Your task to perform on an android device: star an email in the gmail app Image 0: 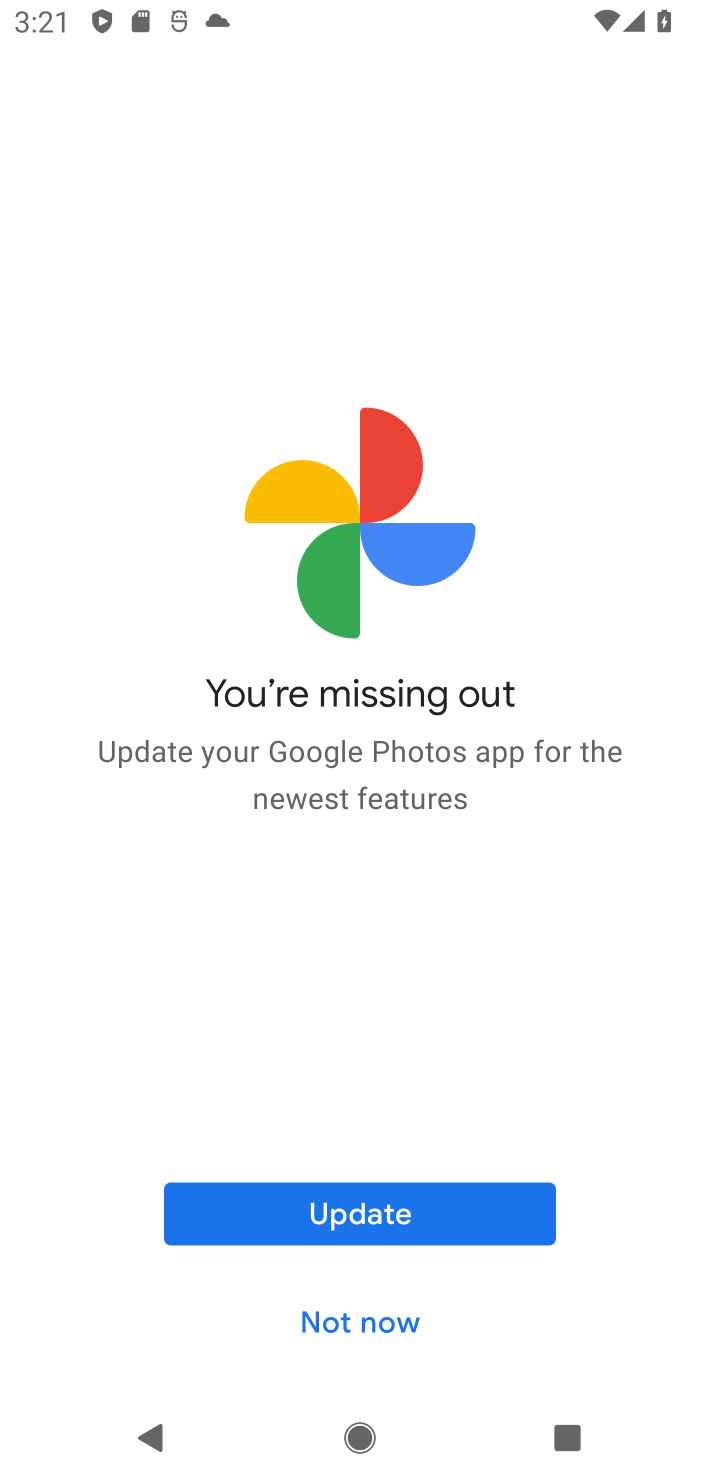
Step 0: press home button
Your task to perform on an android device: star an email in the gmail app Image 1: 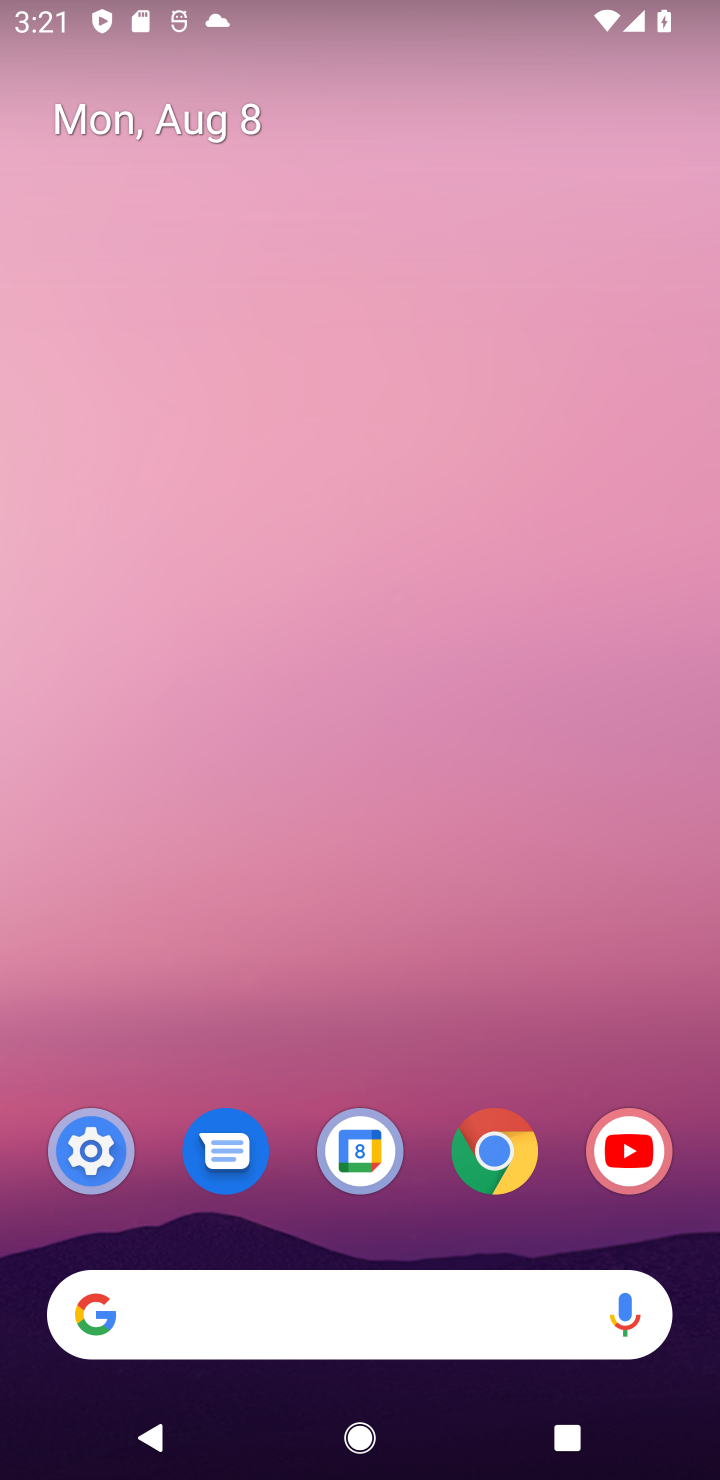
Step 1: drag from (335, 1041) to (380, 217)
Your task to perform on an android device: star an email in the gmail app Image 2: 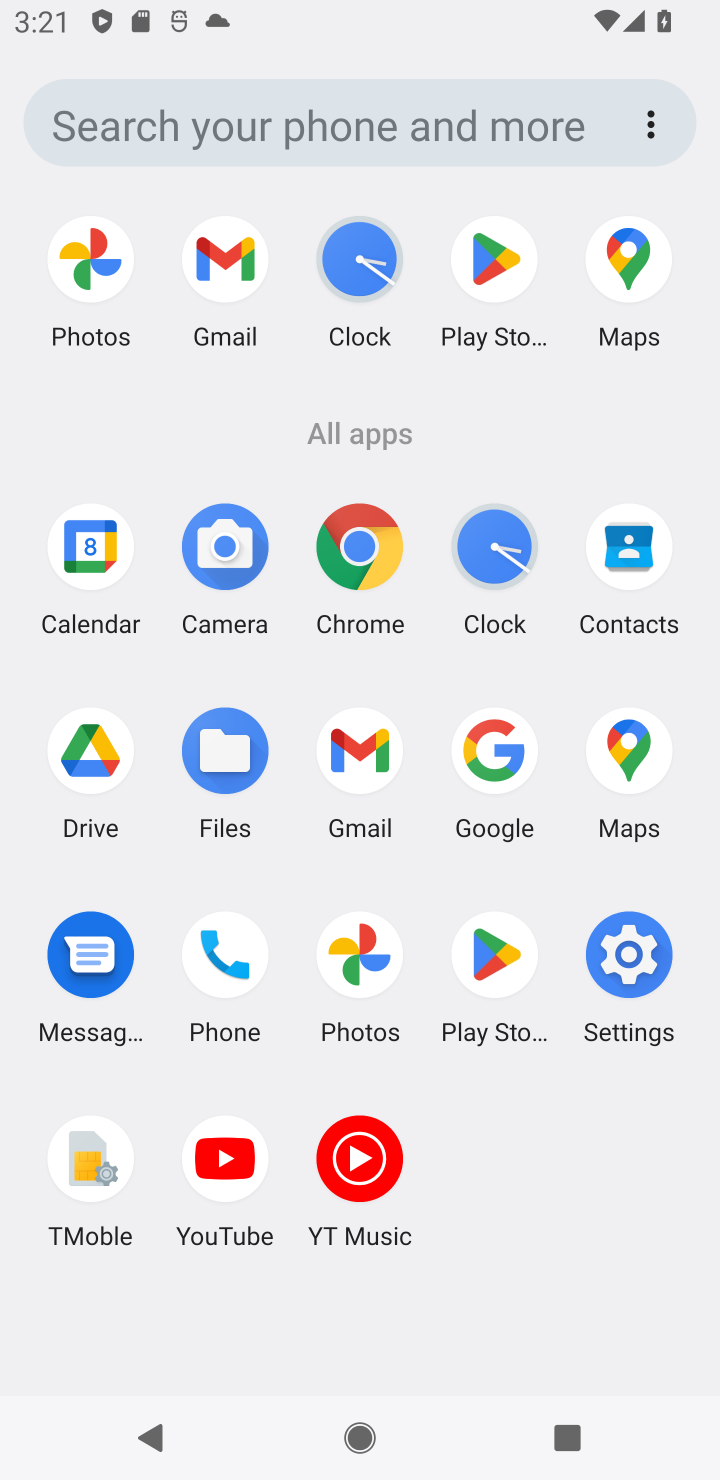
Step 2: click (365, 774)
Your task to perform on an android device: star an email in the gmail app Image 3: 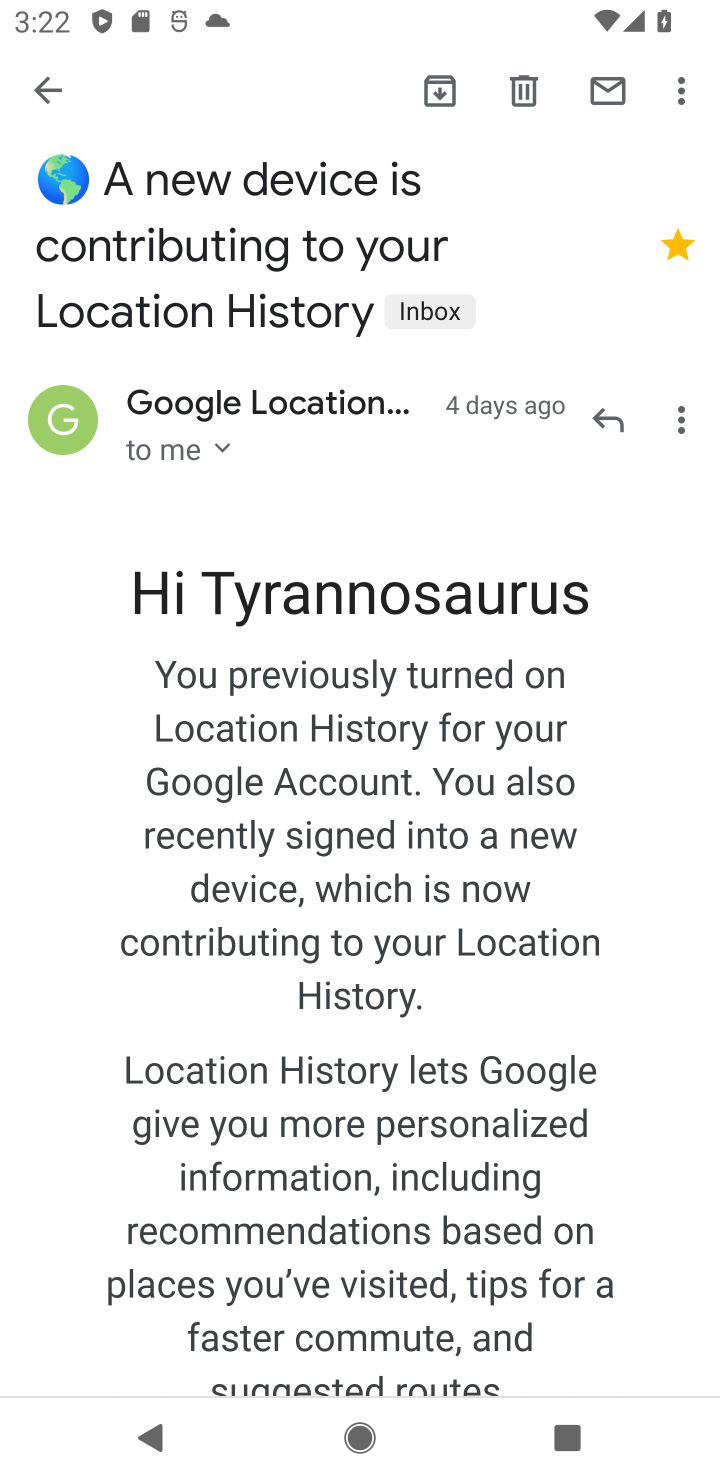
Step 3: click (62, 86)
Your task to perform on an android device: star an email in the gmail app Image 4: 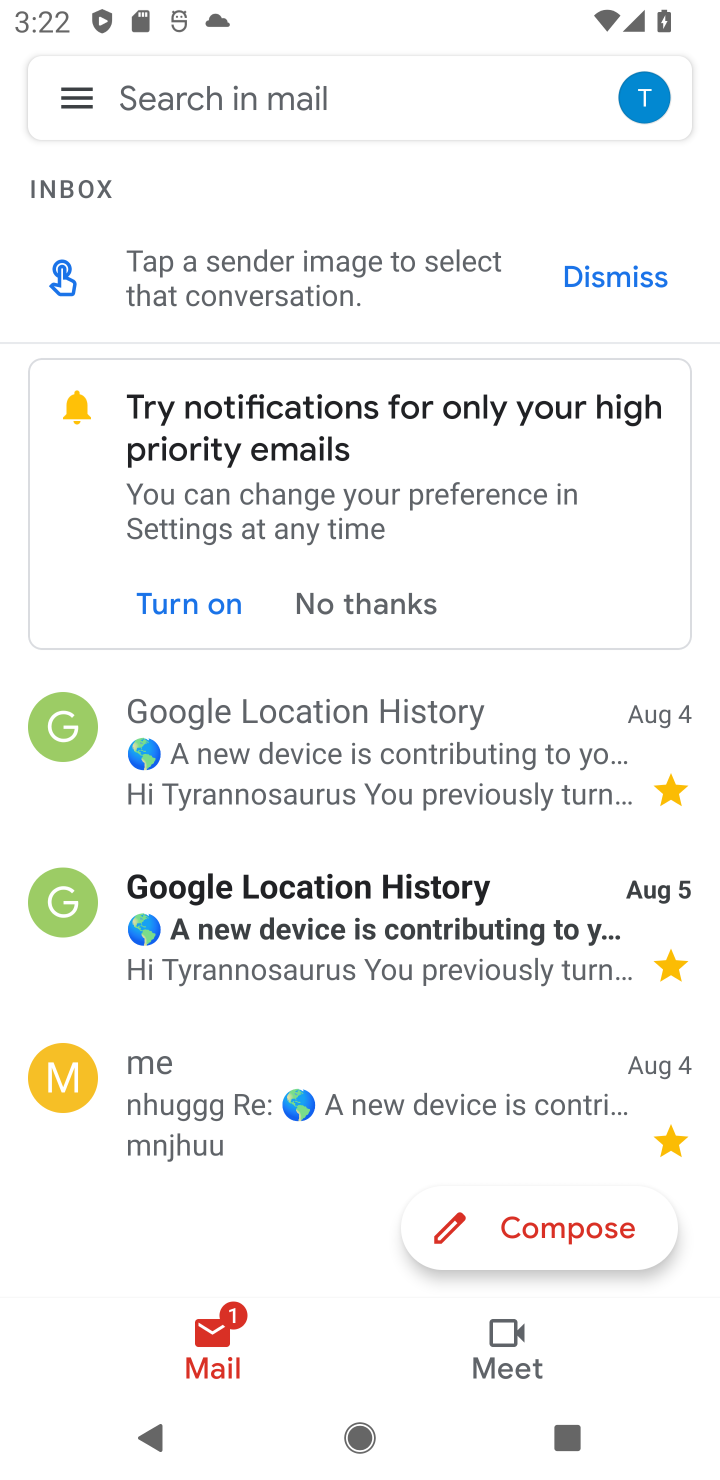
Step 4: task complete